Your task to perform on an android device: open wifi settings Image 0: 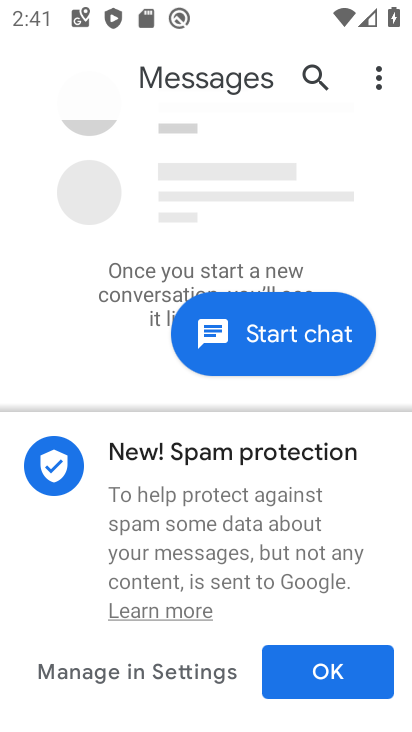
Step 0: press home button
Your task to perform on an android device: open wifi settings Image 1: 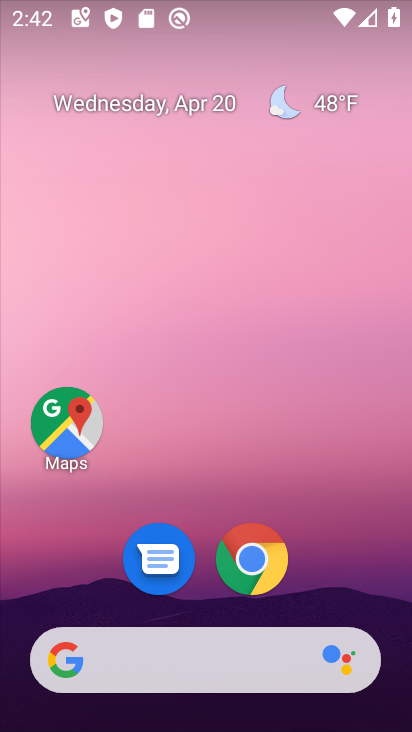
Step 1: drag from (276, 698) to (411, 172)
Your task to perform on an android device: open wifi settings Image 2: 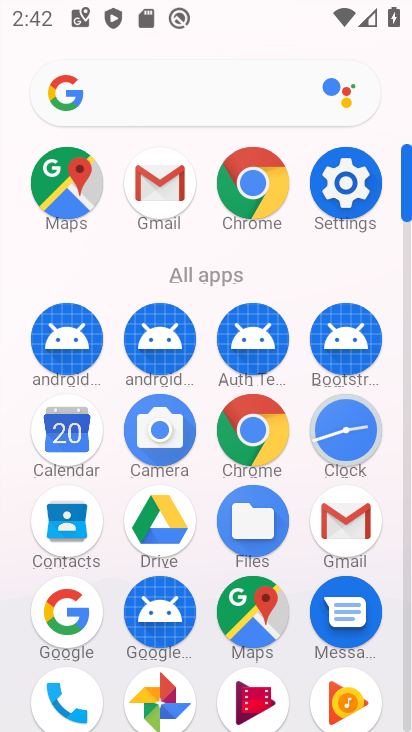
Step 2: click (342, 199)
Your task to perform on an android device: open wifi settings Image 3: 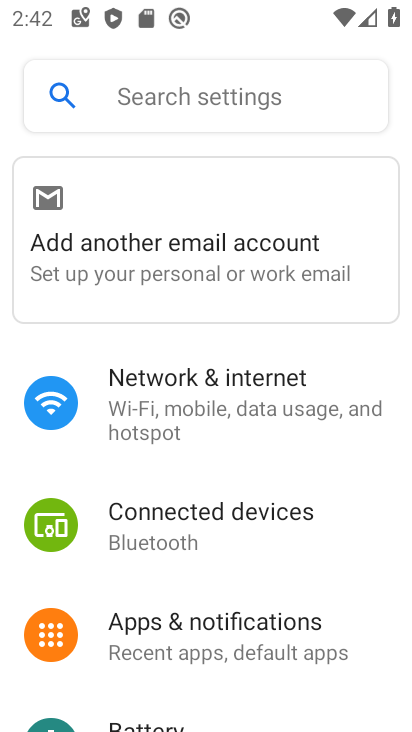
Step 3: click (161, 406)
Your task to perform on an android device: open wifi settings Image 4: 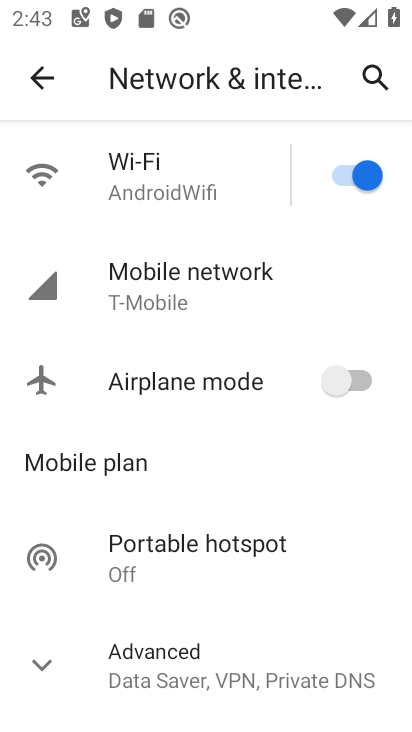
Step 4: click (184, 181)
Your task to perform on an android device: open wifi settings Image 5: 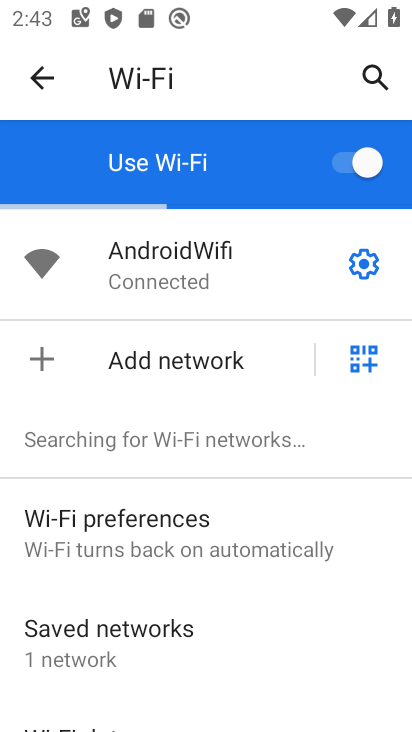
Step 5: task complete